Your task to perform on an android device: set the timer Image 0: 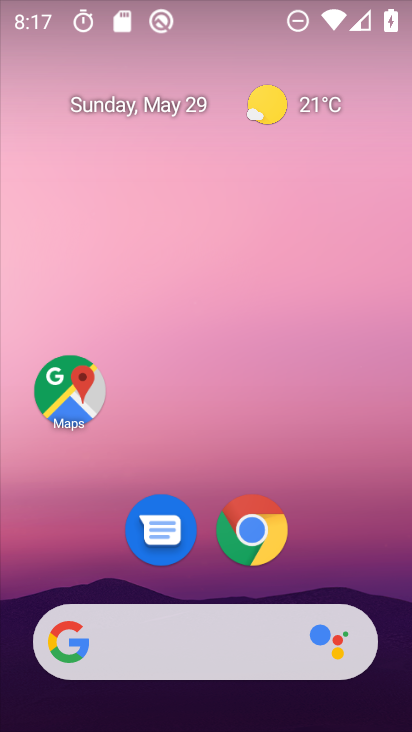
Step 0: press home button
Your task to perform on an android device: set the timer Image 1: 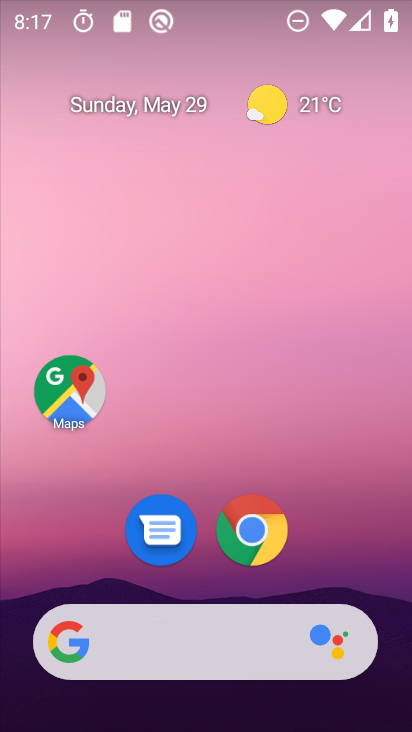
Step 1: drag from (264, 672) to (337, 134)
Your task to perform on an android device: set the timer Image 2: 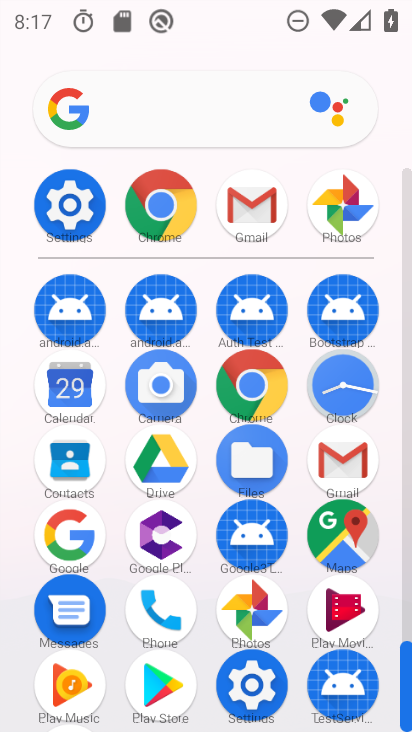
Step 2: click (364, 384)
Your task to perform on an android device: set the timer Image 3: 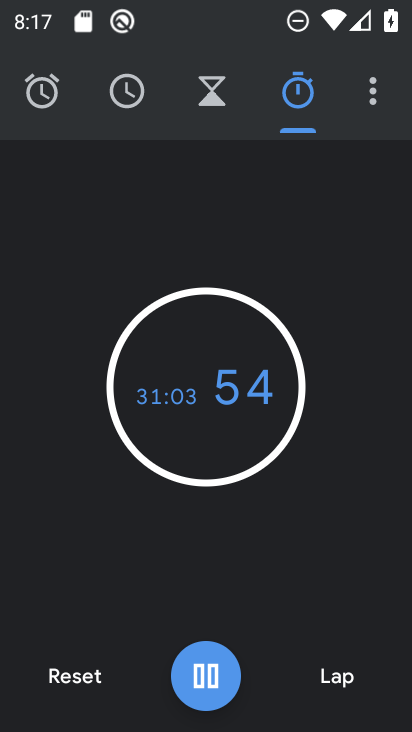
Step 3: click (207, 673)
Your task to perform on an android device: set the timer Image 4: 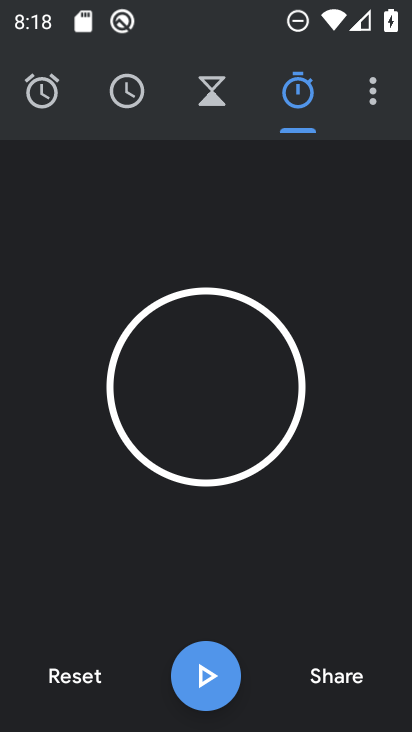
Step 4: task complete